Your task to perform on an android device: see tabs open on other devices in the chrome app Image 0: 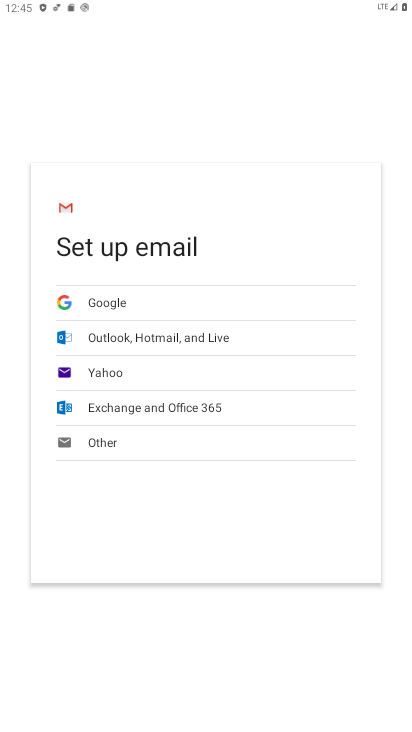
Step 0: press home button
Your task to perform on an android device: see tabs open on other devices in the chrome app Image 1: 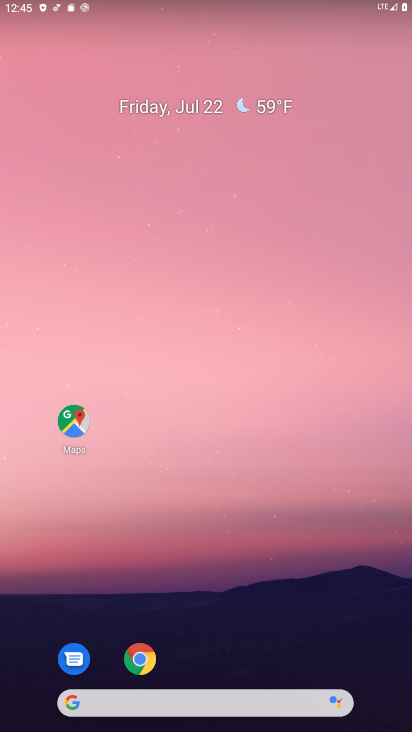
Step 1: click (129, 664)
Your task to perform on an android device: see tabs open on other devices in the chrome app Image 2: 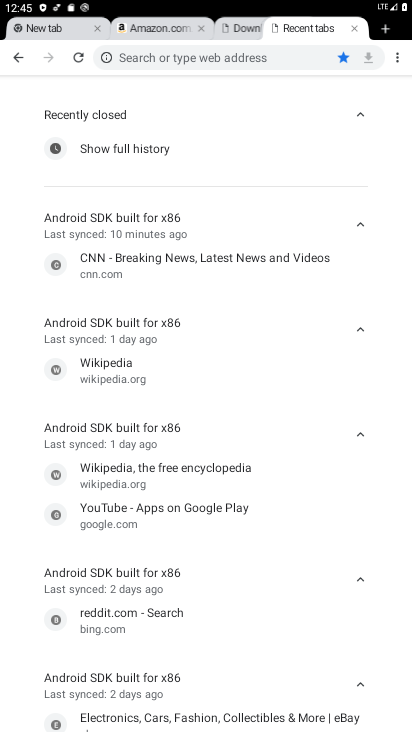
Step 2: click (386, 28)
Your task to perform on an android device: see tabs open on other devices in the chrome app Image 3: 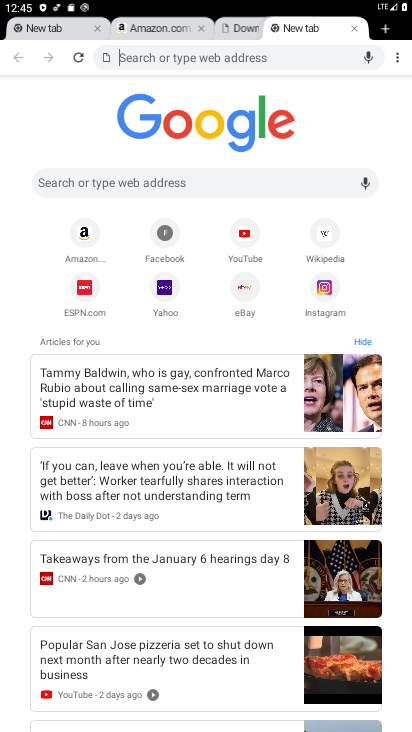
Step 3: click (396, 66)
Your task to perform on an android device: see tabs open on other devices in the chrome app Image 4: 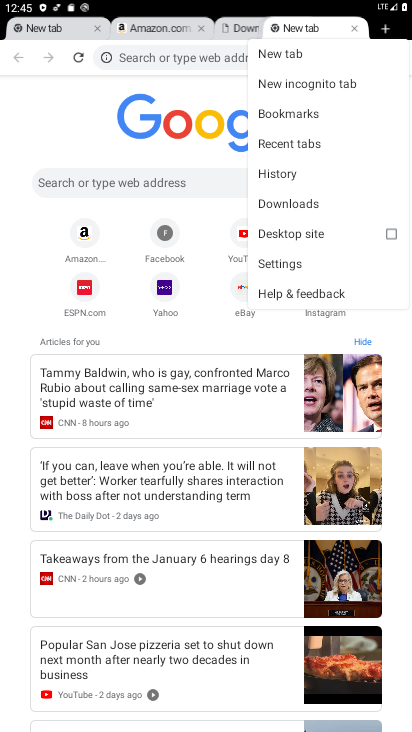
Step 4: click (315, 140)
Your task to perform on an android device: see tabs open on other devices in the chrome app Image 5: 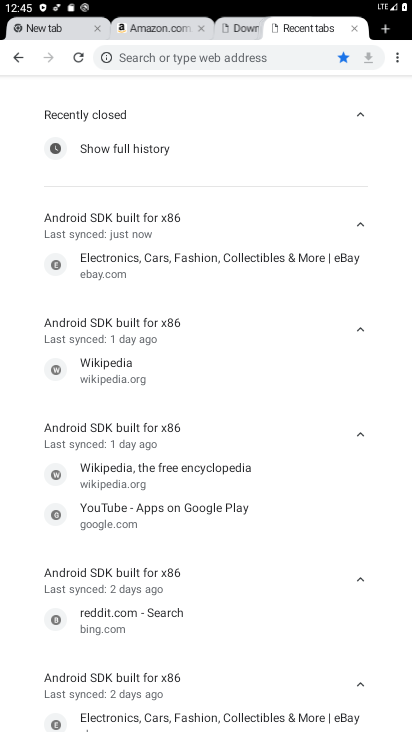
Step 5: task complete